Your task to perform on an android device: empty trash in google photos Image 0: 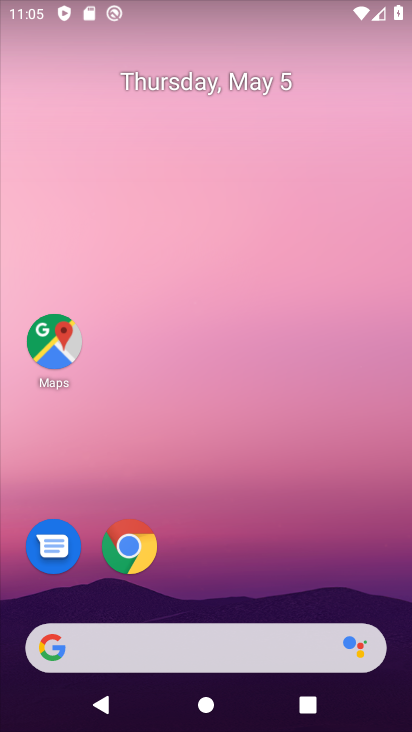
Step 0: drag from (236, 614) to (155, 84)
Your task to perform on an android device: empty trash in google photos Image 1: 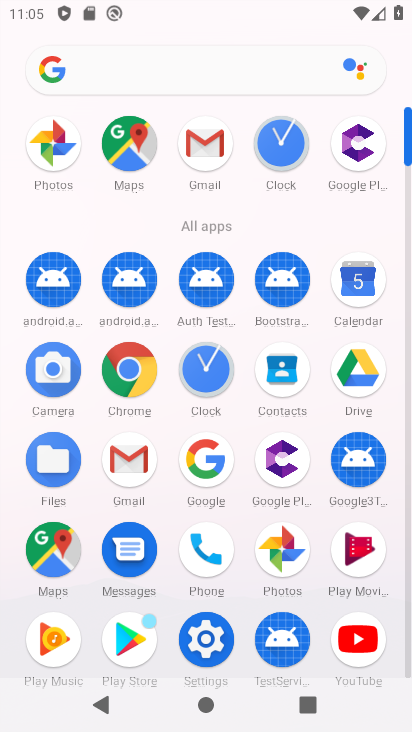
Step 1: click (277, 548)
Your task to perform on an android device: empty trash in google photos Image 2: 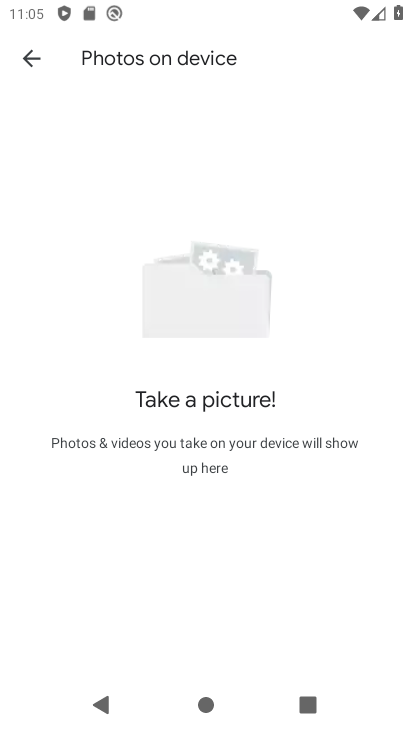
Step 2: click (40, 49)
Your task to perform on an android device: empty trash in google photos Image 3: 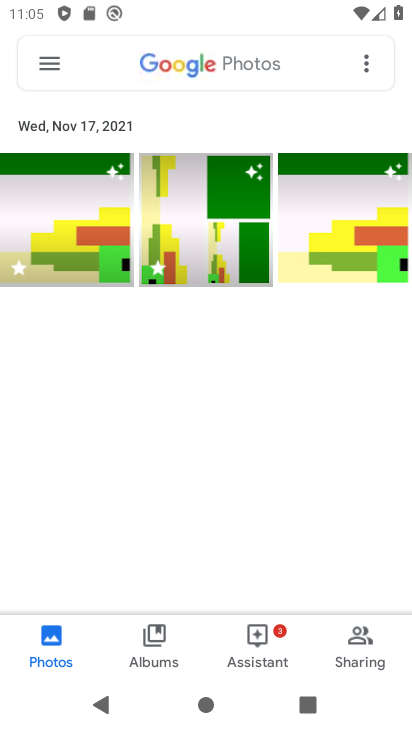
Step 3: click (40, 49)
Your task to perform on an android device: empty trash in google photos Image 4: 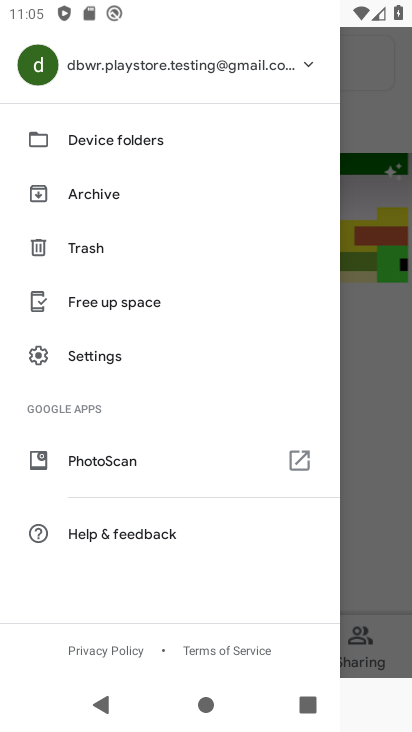
Step 4: click (91, 252)
Your task to perform on an android device: empty trash in google photos Image 5: 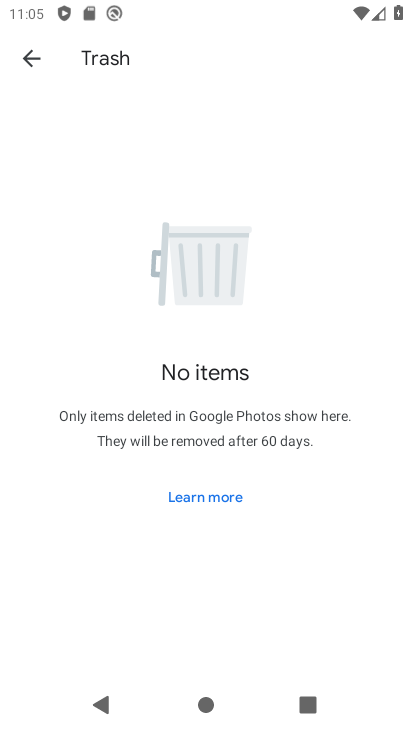
Step 5: task complete